Your task to perform on an android device: turn off location history Image 0: 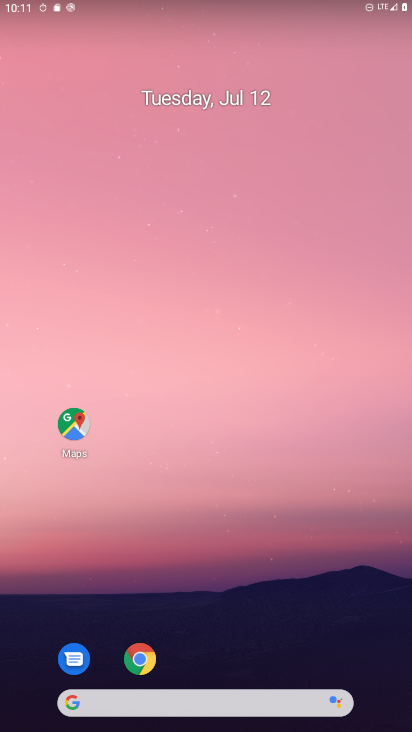
Step 0: drag from (371, 662) to (258, 150)
Your task to perform on an android device: turn off location history Image 1: 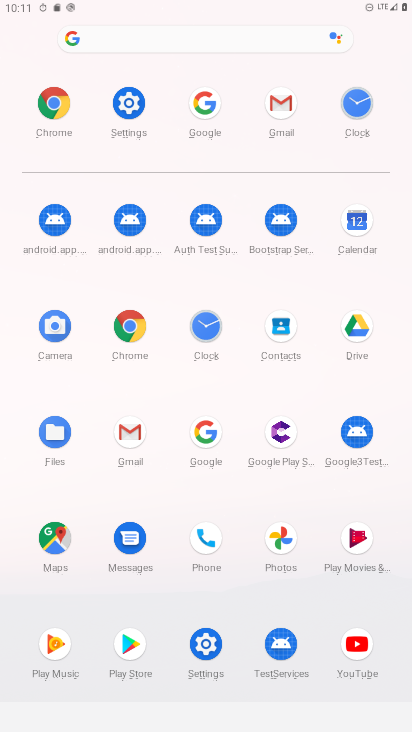
Step 1: click (220, 645)
Your task to perform on an android device: turn off location history Image 2: 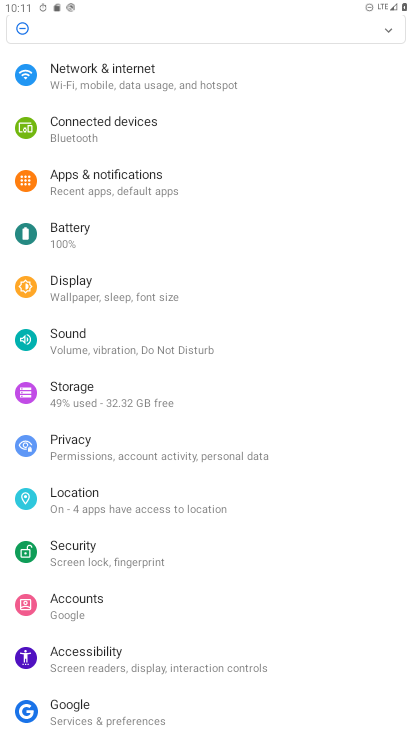
Step 2: click (89, 497)
Your task to perform on an android device: turn off location history Image 3: 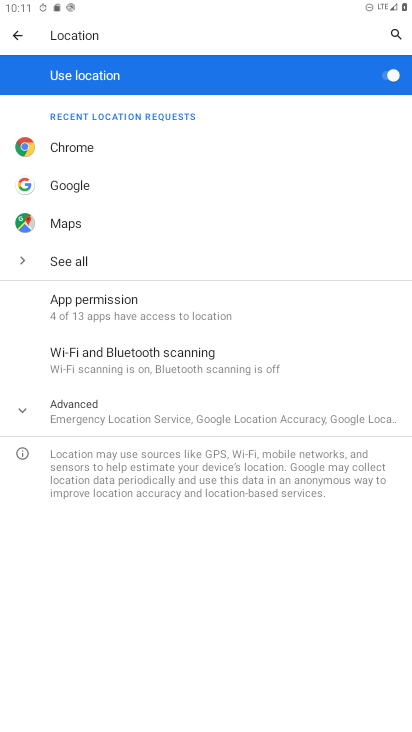
Step 3: click (105, 417)
Your task to perform on an android device: turn off location history Image 4: 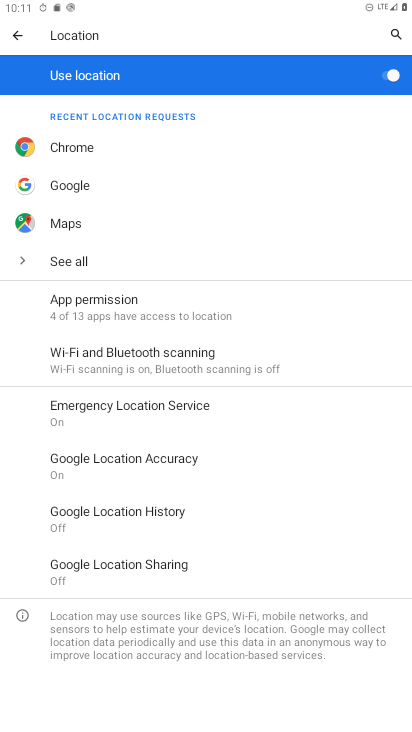
Step 4: click (120, 512)
Your task to perform on an android device: turn off location history Image 5: 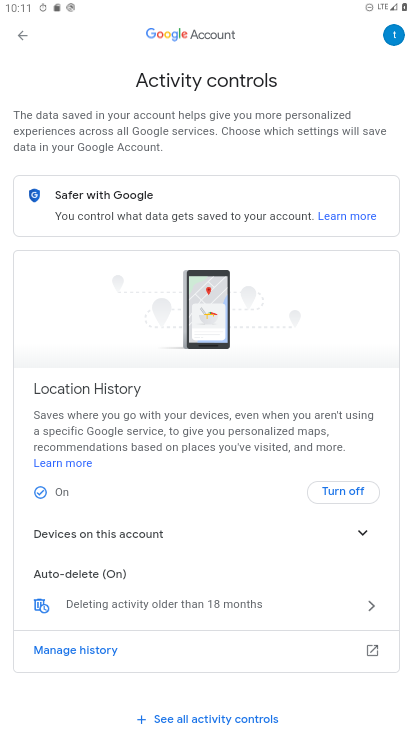
Step 5: task complete